Your task to perform on an android device: Go to wifi settings Image 0: 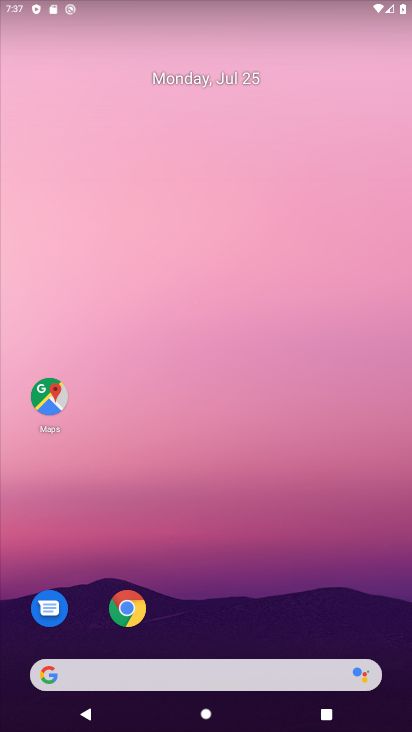
Step 0: drag from (200, 413) to (241, 56)
Your task to perform on an android device: Go to wifi settings Image 1: 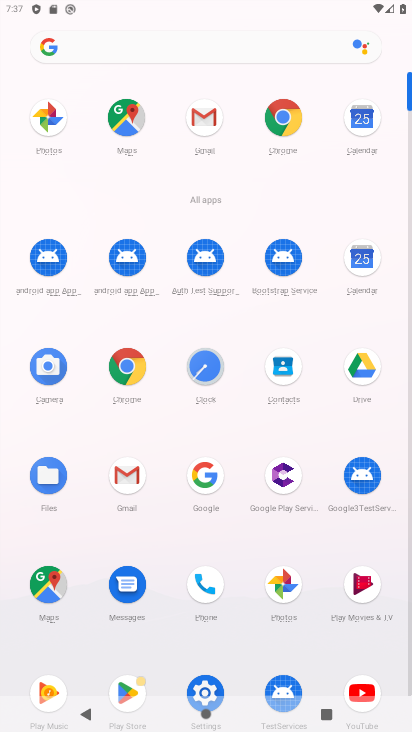
Step 1: click (205, 678)
Your task to perform on an android device: Go to wifi settings Image 2: 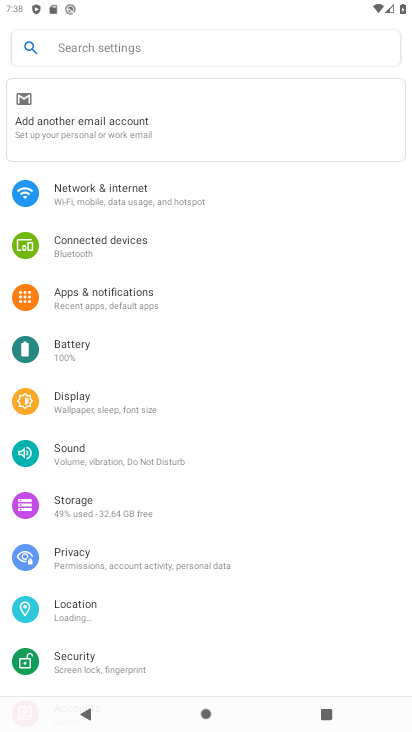
Step 2: click (117, 198)
Your task to perform on an android device: Go to wifi settings Image 3: 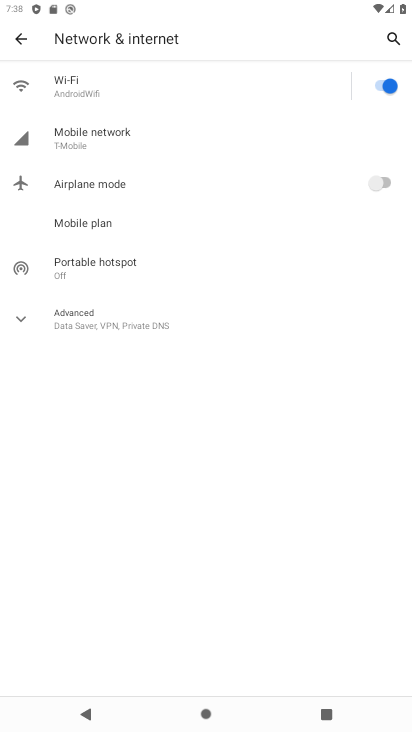
Step 3: click (178, 90)
Your task to perform on an android device: Go to wifi settings Image 4: 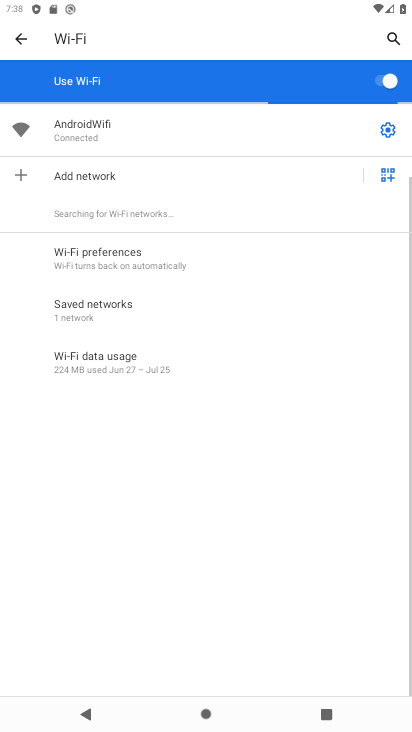
Step 4: click (388, 130)
Your task to perform on an android device: Go to wifi settings Image 5: 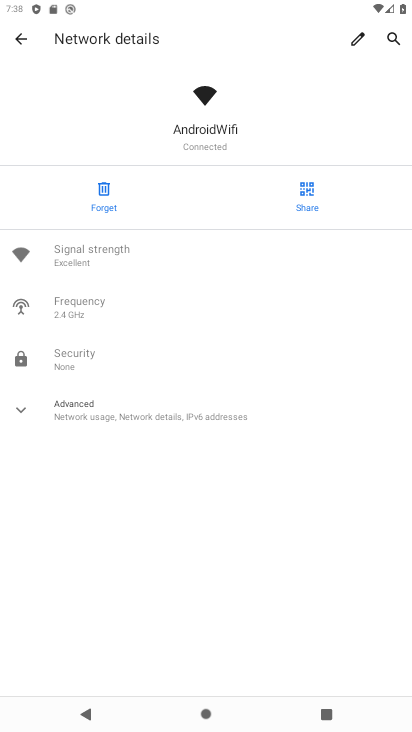
Step 5: task complete